Your task to perform on an android device: check google app version Image 0: 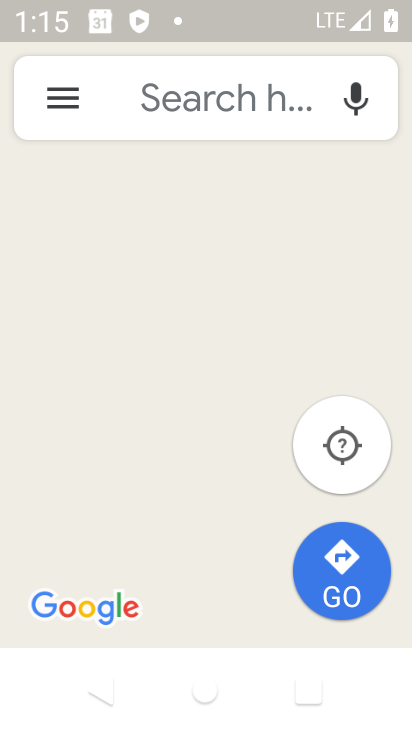
Step 0: press home button
Your task to perform on an android device: check google app version Image 1: 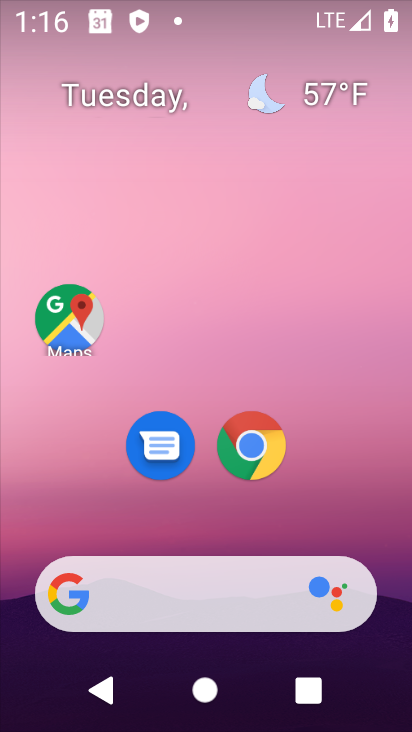
Step 1: drag from (325, 513) to (327, 154)
Your task to perform on an android device: check google app version Image 2: 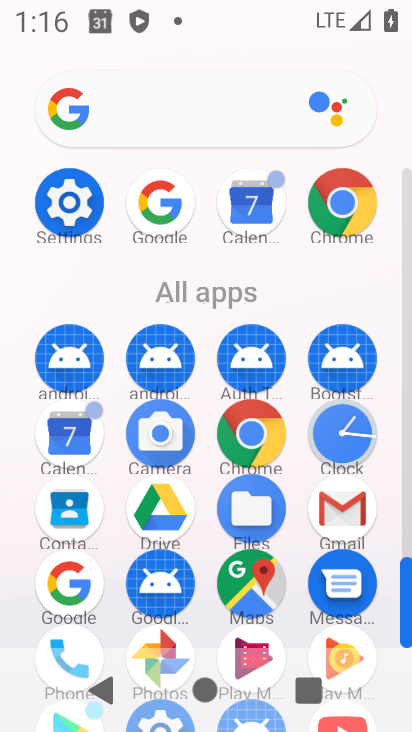
Step 2: click (66, 587)
Your task to perform on an android device: check google app version Image 3: 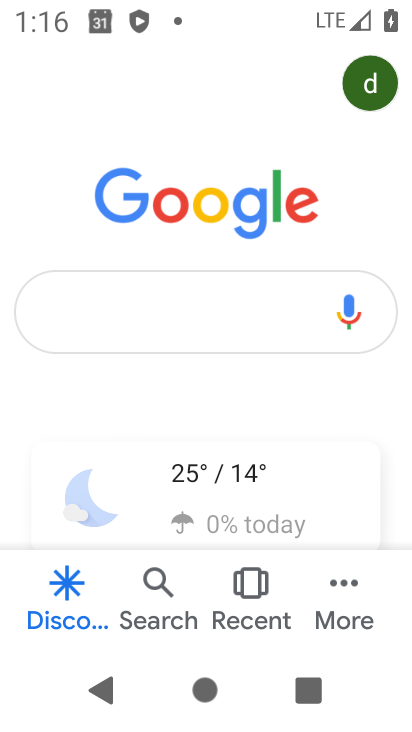
Step 3: click (348, 592)
Your task to perform on an android device: check google app version Image 4: 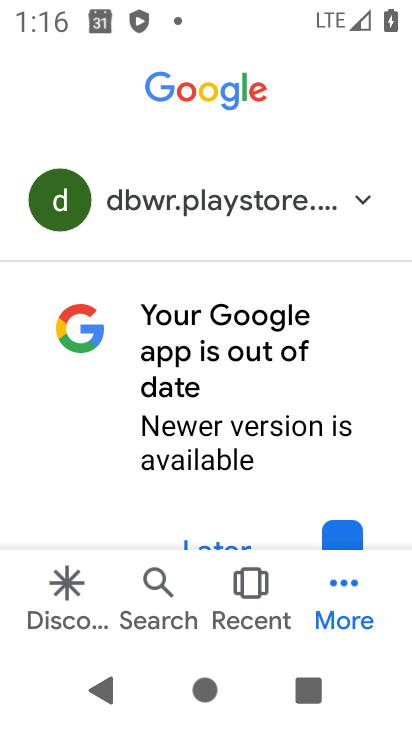
Step 4: drag from (326, 475) to (335, 297)
Your task to perform on an android device: check google app version Image 5: 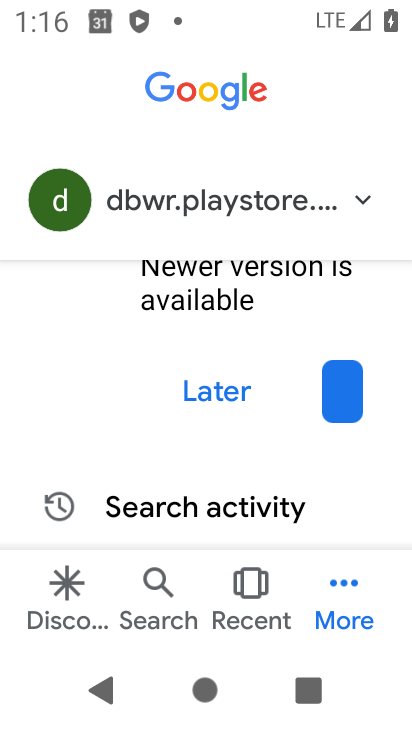
Step 5: drag from (272, 449) to (271, 295)
Your task to perform on an android device: check google app version Image 6: 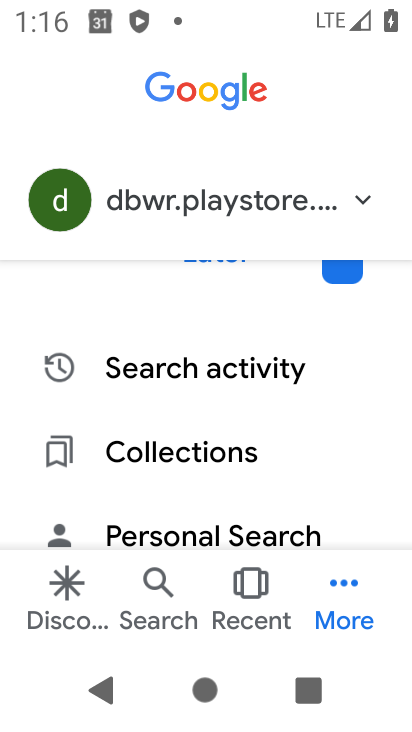
Step 6: drag from (288, 474) to (284, 328)
Your task to perform on an android device: check google app version Image 7: 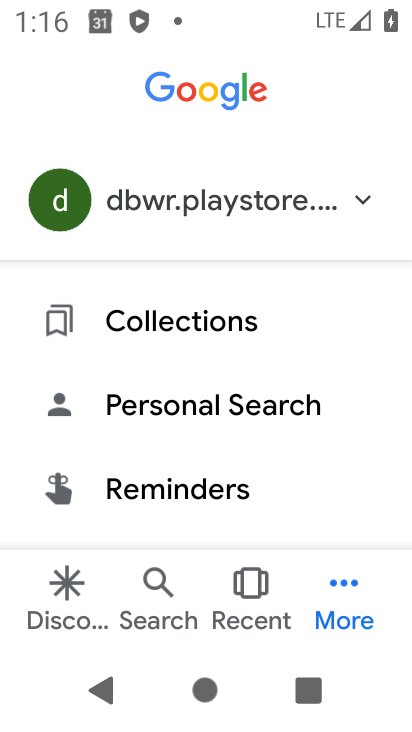
Step 7: drag from (276, 495) to (282, 336)
Your task to perform on an android device: check google app version Image 8: 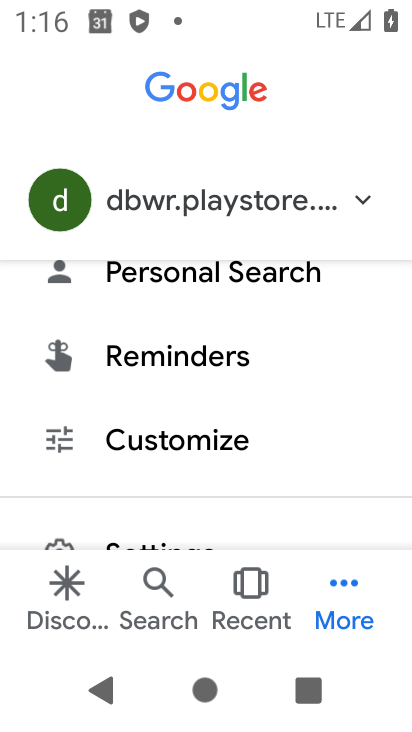
Step 8: drag from (280, 491) to (279, 343)
Your task to perform on an android device: check google app version Image 9: 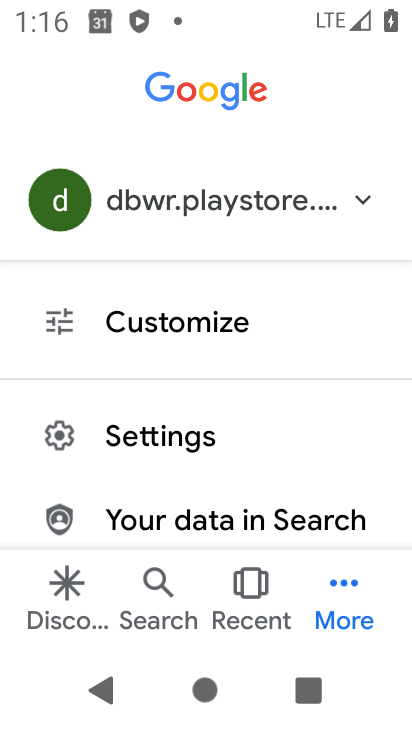
Step 9: click (216, 446)
Your task to perform on an android device: check google app version Image 10: 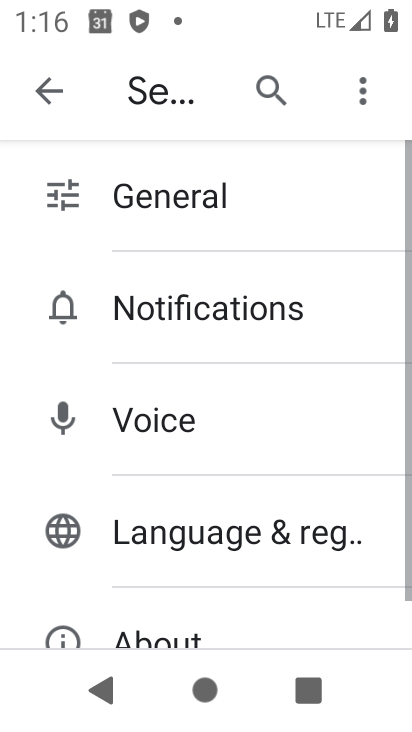
Step 10: drag from (317, 464) to (330, 314)
Your task to perform on an android device: check google app version Image 11: 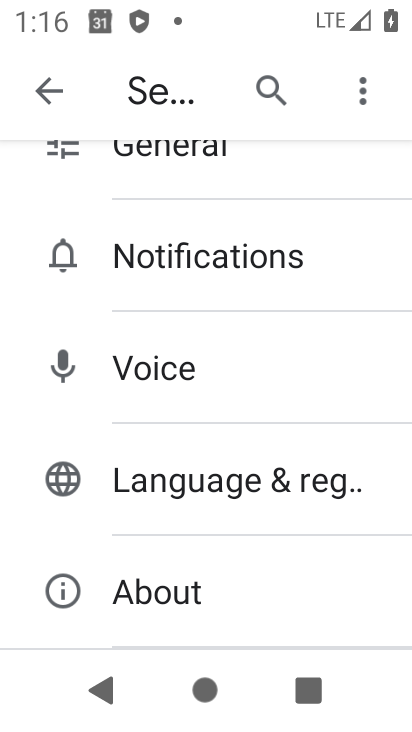
Step 11: drag from (338, 541) to (336, 328)
Your task to perform on an android device: check google app version Image 12: 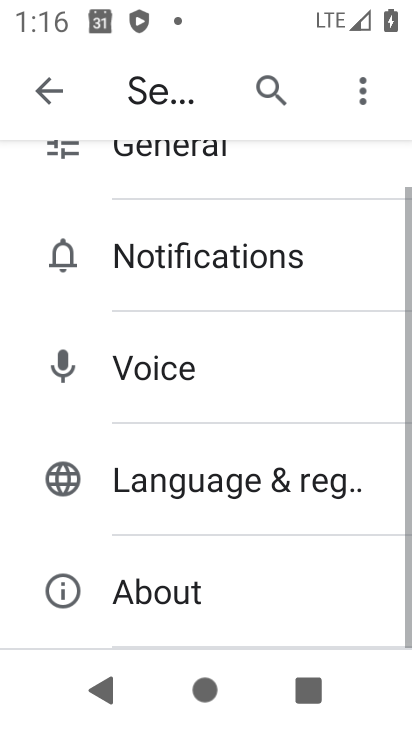
Step 12: click (250, 590)
Your task to perform on an android device: check google app version Image 13: 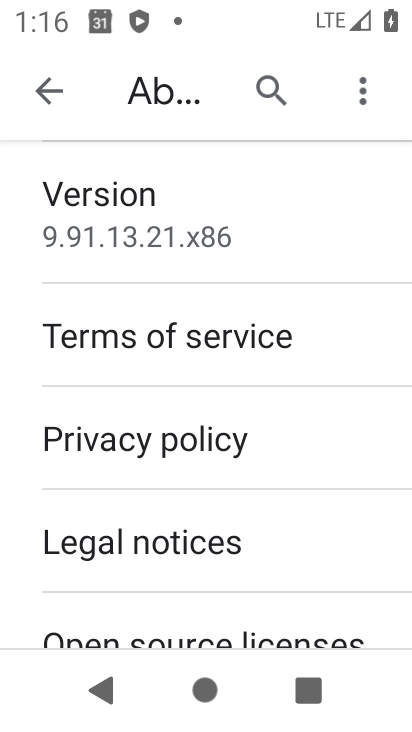
Step 13: task complete